Your task to perform on an android device: open the mobile data screen to see how much data has been used Image 0: 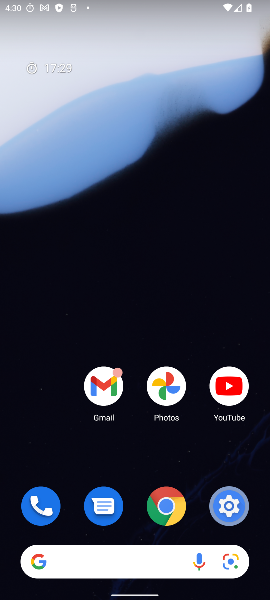
Step 0: drag from (116, 528) to (76, 107)
Your task to perform on an android device: open the mobile data screen to see how much data has been used Image 1: 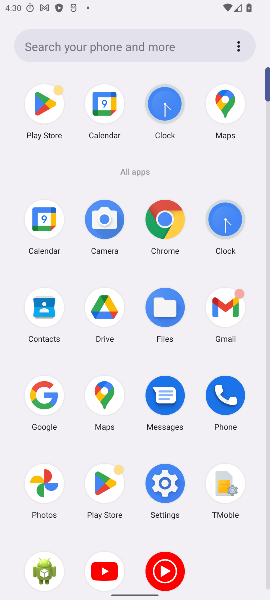
Step 1: click (175, 477)
Your task to perform on an android device: open the mobile data screen to see how much data has been used Image 2: 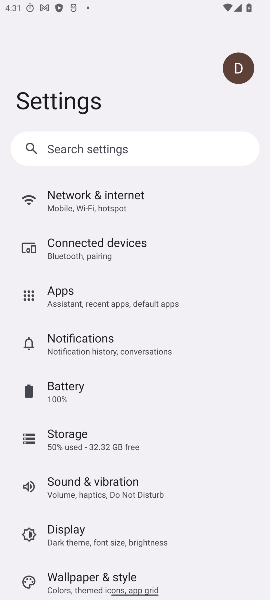
Step 2: click (82, 216)
Your task to perform on an android device: open the mobile data screen to see how much data has been used Image 3: 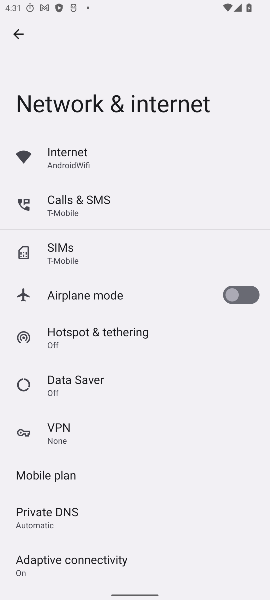
Step 3: click (64, 168)
Your task to perform on an android device: open the mobile data screen to see how much data has been used Image 4: 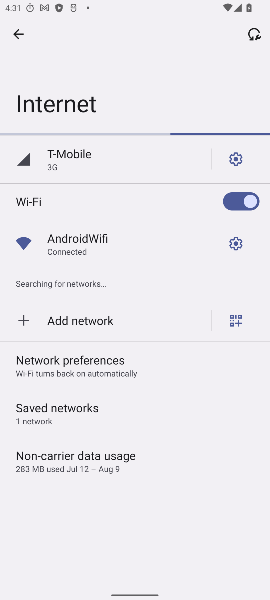
Step 4: click (72, 161)
Your task to perform on an android device: open the mobile data screen to see how much data has been used Image 5: 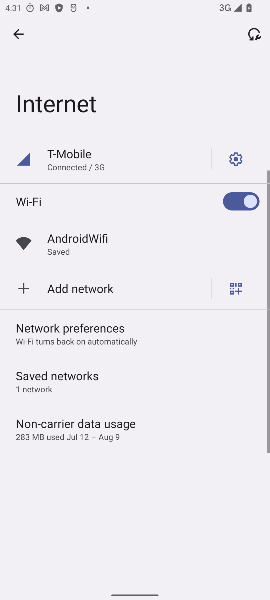
Step 5: click (81, 163)
Your task to perform on an android device: open the mobile data screen to see how much data has been used Image 6: 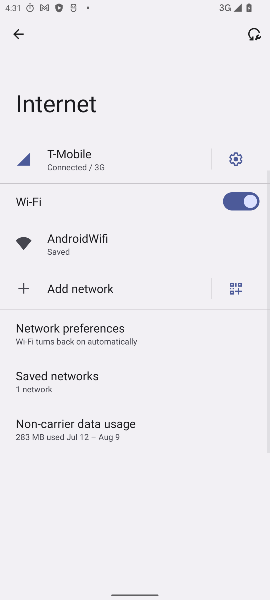
Step 6: click (75, 164)
Your task to perform on an android device: open the mobile data screen to see how much data has been used Image 7: 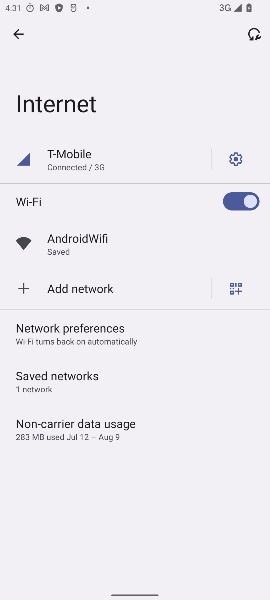
Step 7: click (76, 164)
Your task to perform on an android device: open the mobile data screen to see how much data has been used Image 8: 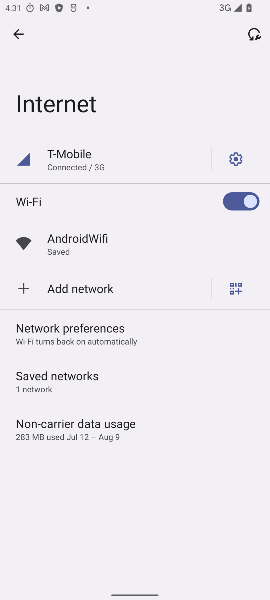
Step 8: click (76, 164)
Your task to perform on an android device: open the mobile data screen to see how much data has been used Image 9: 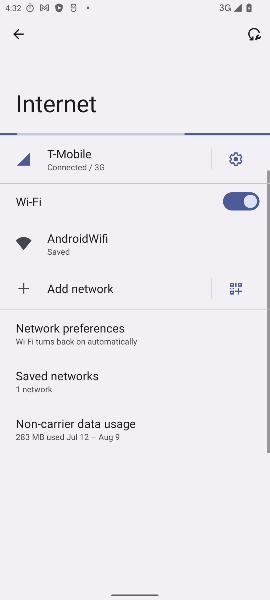
Step 9: task complete